Your task to perform on an android device: Turn on the flashlight Image 0: 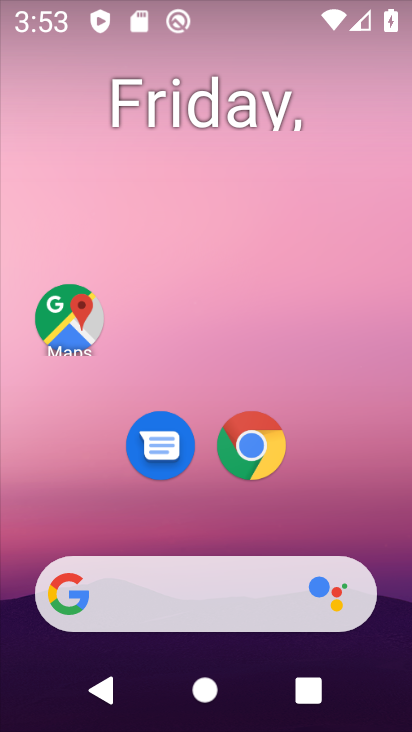
Step 0: drag from (322, 527) to (285, 11)
Your task to perform on an android device: Turn on the flashlight Image 1: 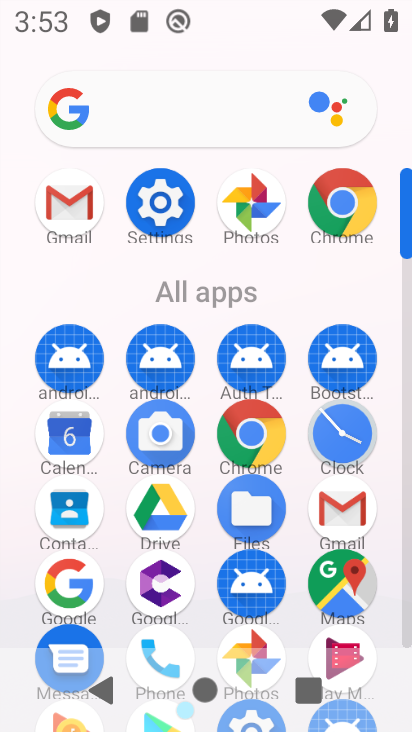
Step 1: drag from (12, 595) to (12, 294)
Your task to perform on an android device: Turn on the flashlight Image 2: 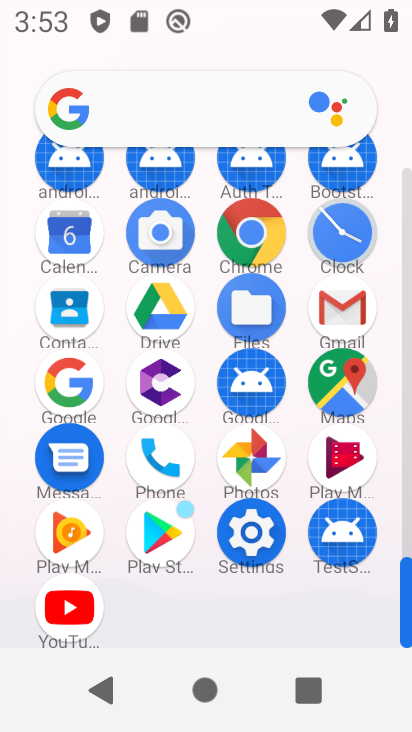
Step 2: click (256, 531)
Your task to perform on an android device: Turn on the flashlight Image 3: 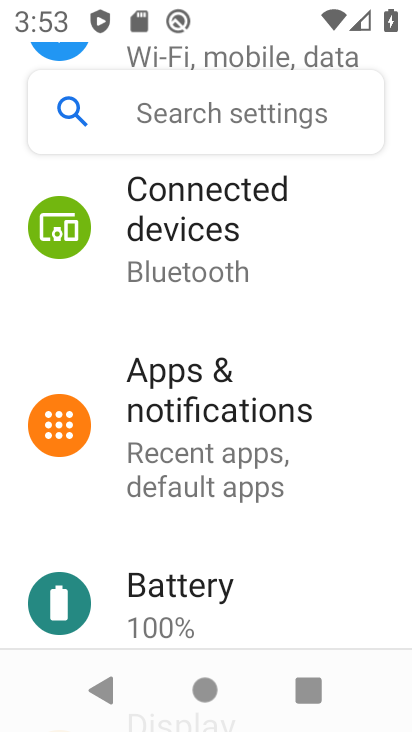
Step 3: drag from (347, 260) to (311, 604)
Your task to perform on an android device: Turn on the flashlight Image 4: 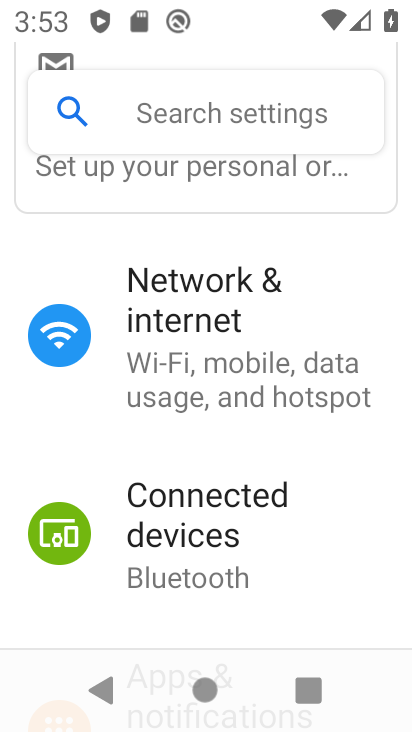
Step 4: drag from (307, 227) to (317, 523)
Your task to perform on an android device: Turn on the flashlight Image 5: 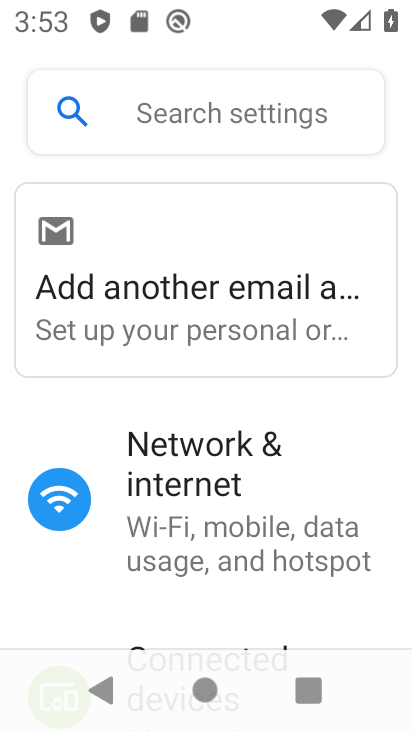
Step 5: drag from (315, 523) to (301, 211)
Your task to perform on an android device: Turn on the flashlight Image 6: 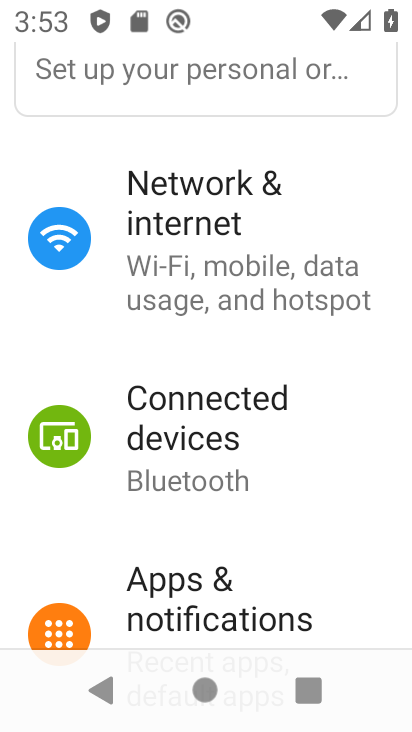
Step 6: drag from (267, 500) to (273, 153)
Your task to perform on an android device: Turn on the flashlight Image 7: 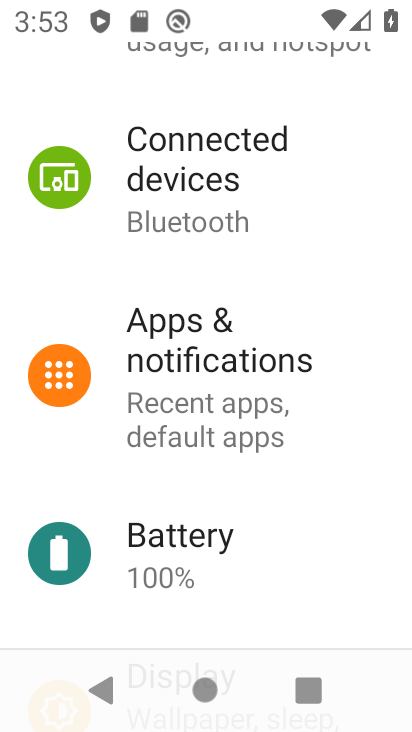
Step 7: drag from (292, 511) to (304, 156)
Your task to perform on an android device: Turn on the flashlight Image 8: 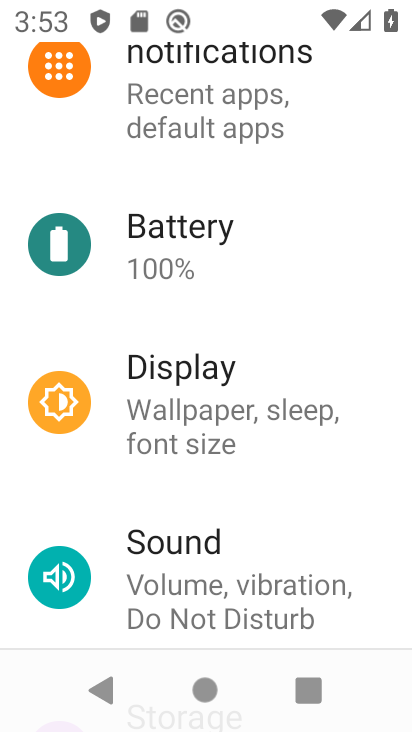
Step 8: drag from (306, 556) to (350, 122)
Your task to perform on an android device: Turn on the flashlight Image 9: 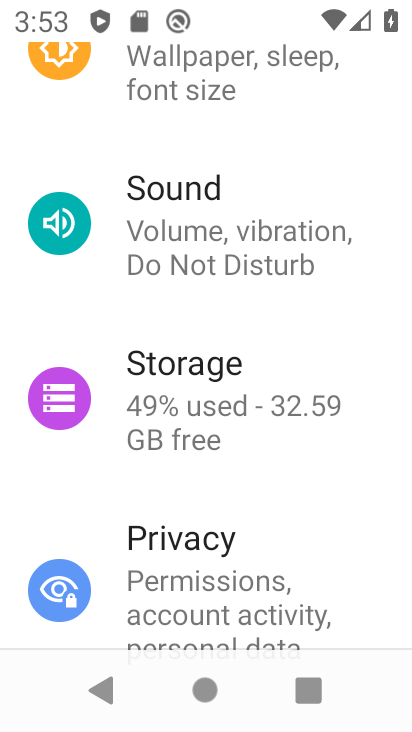
Step 9: drag from (295, 533) to (290, 136)
Your task to perform on an android device: Turn on the flashlight Image 10: 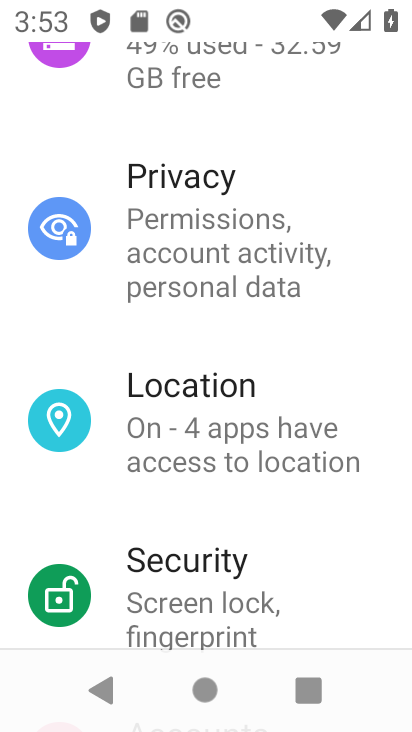
Step 10: drag from (252, 561) to (297, 122)
Your task to perform on an android device: Turn on the flashlight Image 11: 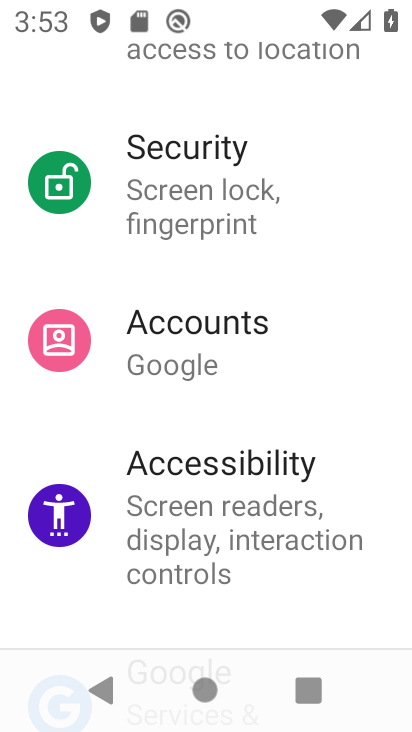
Step 11: drag from (283, 531) to (270, 99)
Your task to perform on an android device: Turn on the flashlight Image 12: 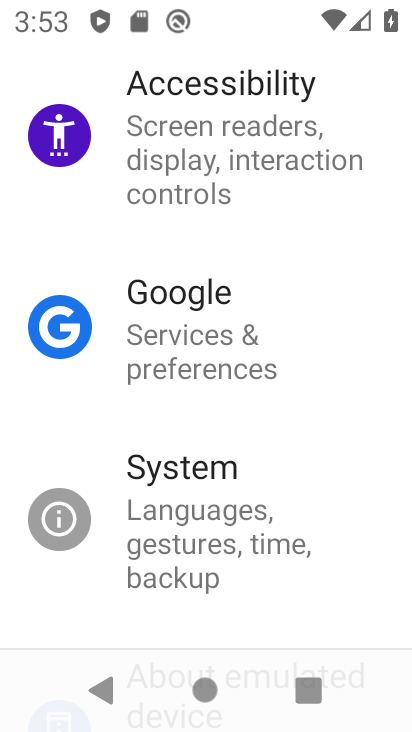
Step 12: drag from (218, 579) to (258, 139)
Your task to perform on an android device: Turn on the flashlight Image 13: 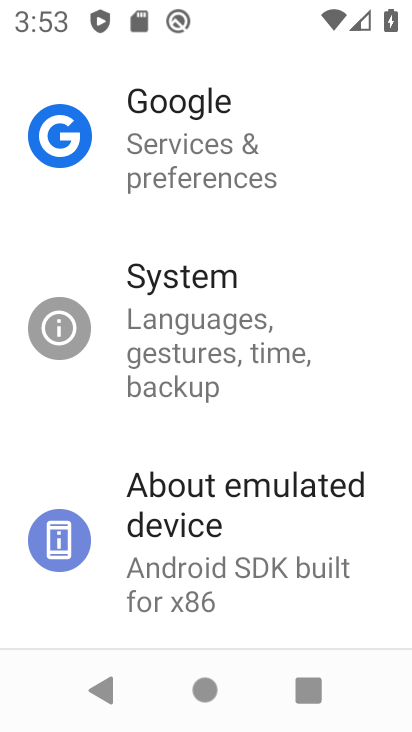
Step 13: drag from (304, 156) to (290, 573)
Your task to perform on an android device: Turn on the flashlight Image 14: 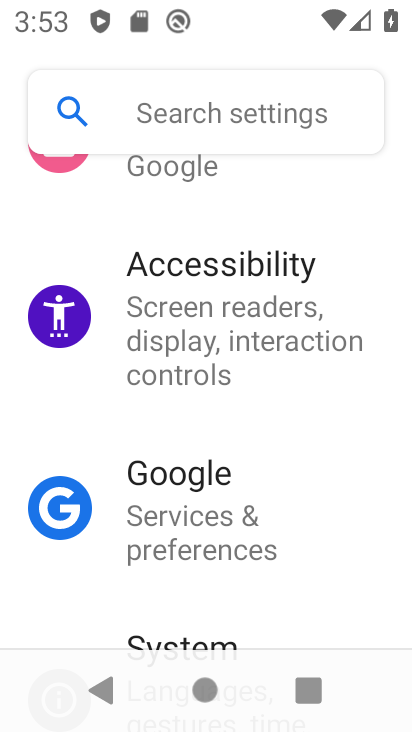
Step 14: drag from (297, 210) to (297, 570)
Your task to perform on an android device: Turn on the flashlight Image 15: 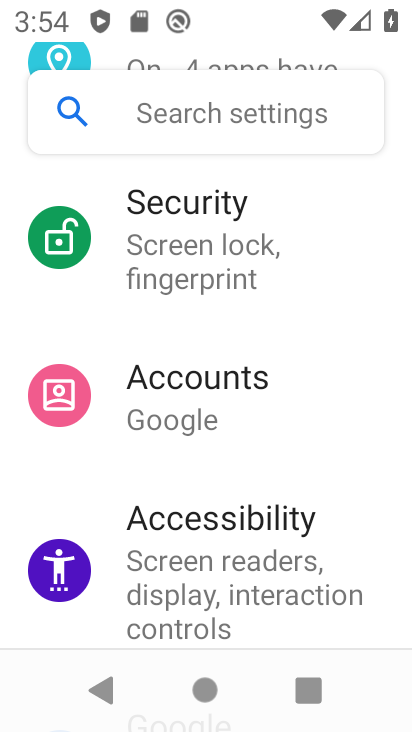
Step 15: drag from (240, 286) to (248, 550)
Your task to perform on an android device: Turn on the flashlight Image 16: 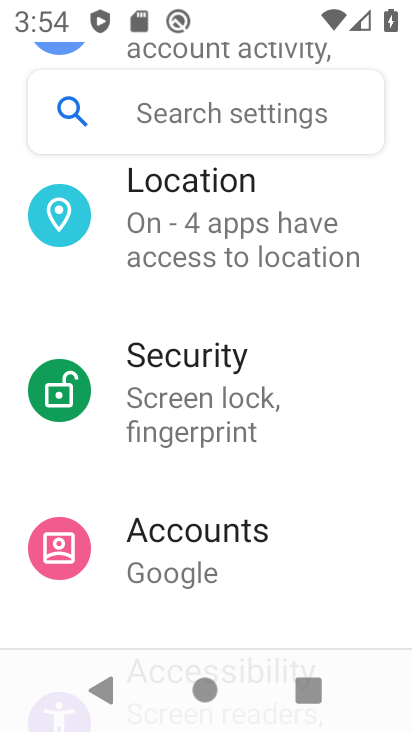
Step 16: drag from (281, 161) to (274, 554)
Your task to perform on an android device: Turn on the flashlight Image 17: 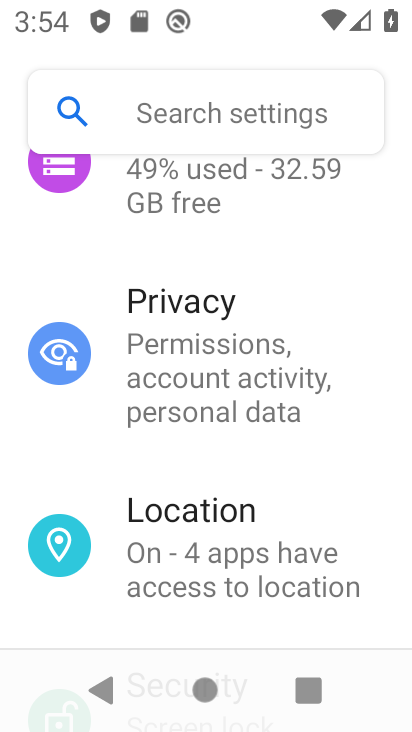
Step 17: drag from (282, 205) to (238, 640)
Your task to perform on an android device: Turn on the flashlight Image 18: 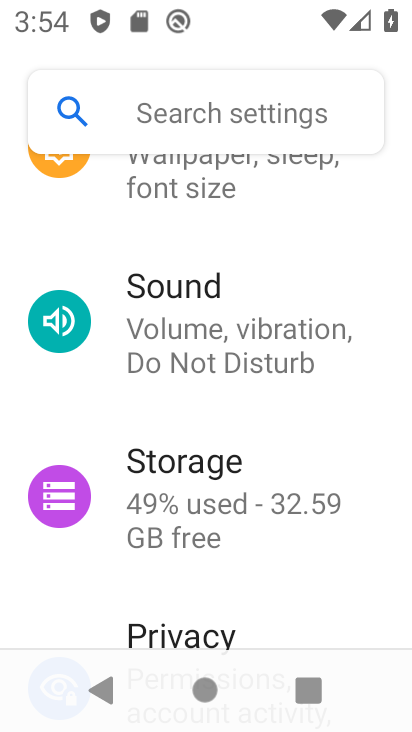
Step 18: drag from (316, 331) to (315, 589)
Your task to perform on an android device: Turn on the flashlight Image 19: 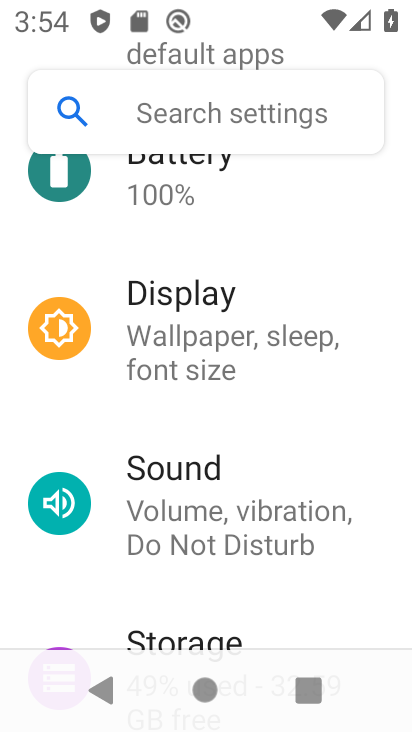
Step 19: drag from (301, 181) to (266, 534)
Your task to perform on an android device: Turn on the flashlight Image 20: 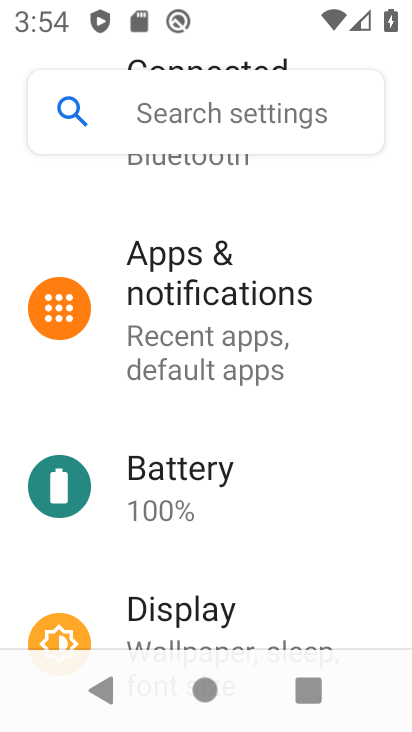
Step 20: drag from (318, 260) to (257, 611)
Your task to perform on an android device: Turn on the flashlight Image 21: 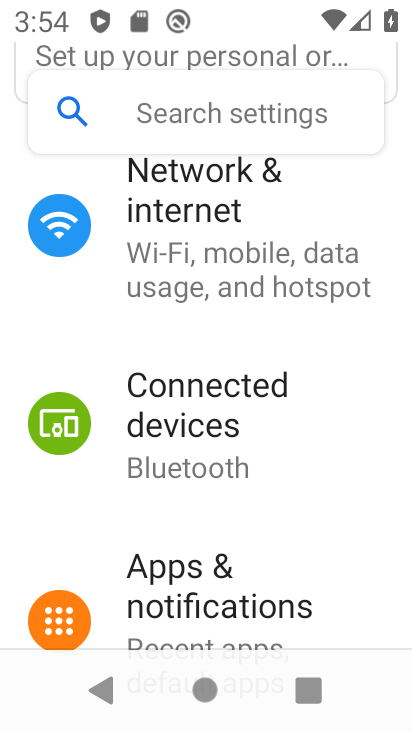
Step 21: click (317, 191)
Your task to perform on an android device: Turn on the flashlight Image 22: 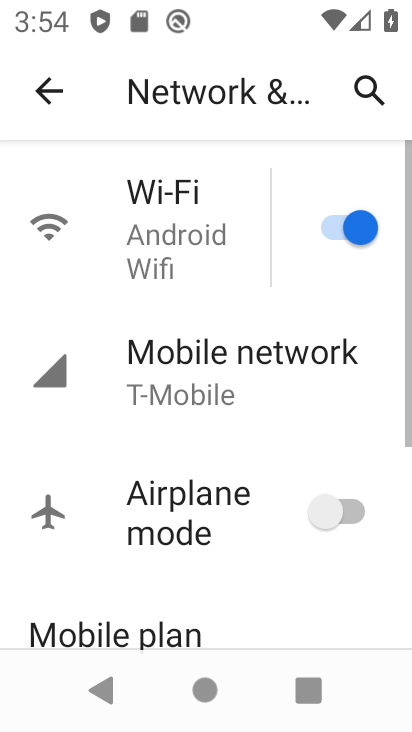
Step 22: task complete